Your task to perform on an android device: turn off javascript in the chrome app Image 0: 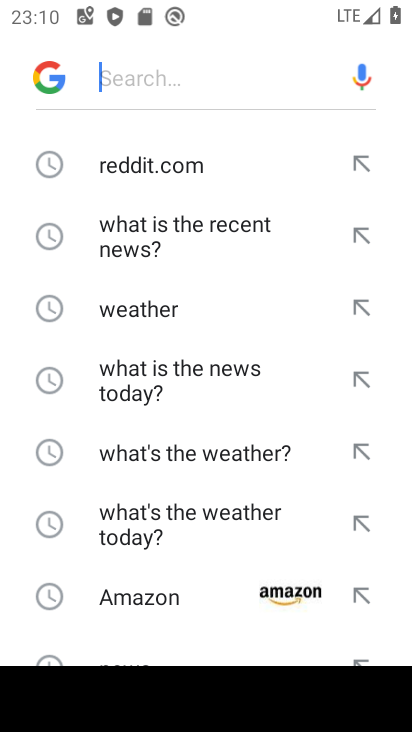
Step 0: press home button
Your task to perform on an android device: turn off javascript in the chrome app Image 1: 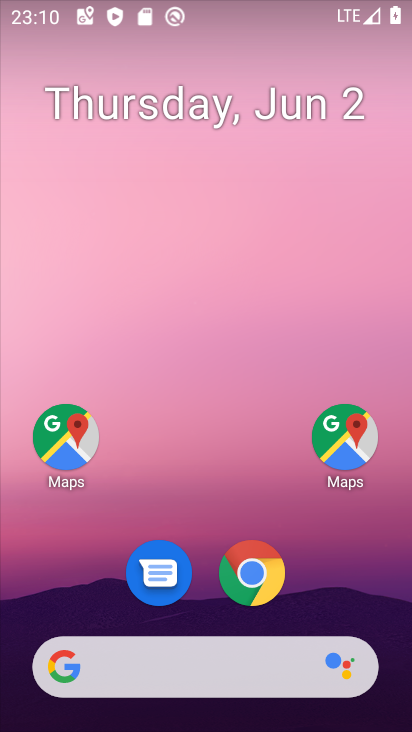
Step 1: click (259, 573)
Your task to perform on an android device: turn off javascript in the chrome app Image 2: 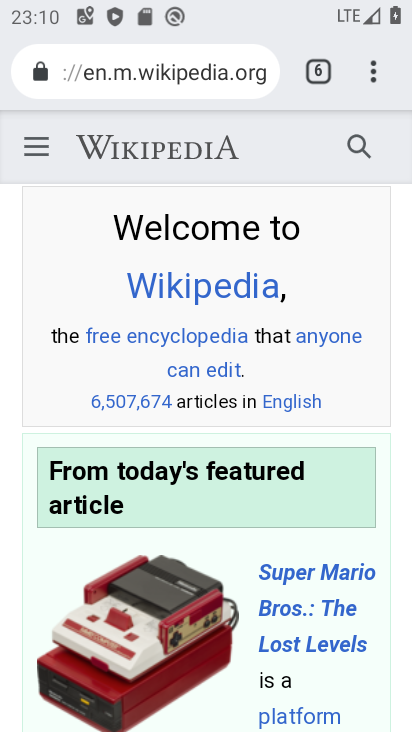
Step 2: click (377, 75)
Your task to perform on an android device: turn off javascript in the chrome app Image 3: 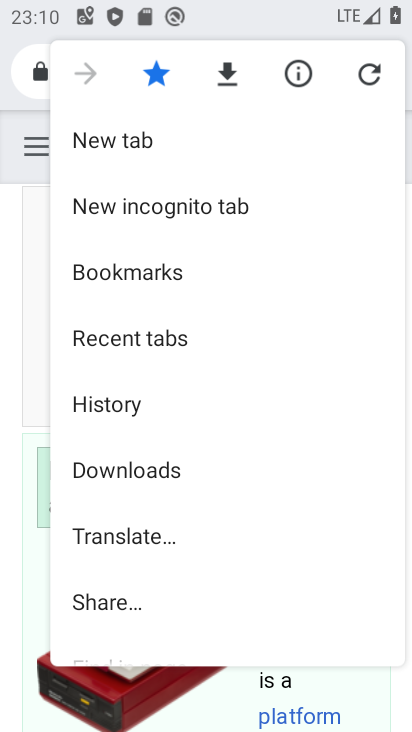
Step 3: click (403, 591)
Your task to perform on an android device: turn off javascript in the chrome app Image 4: 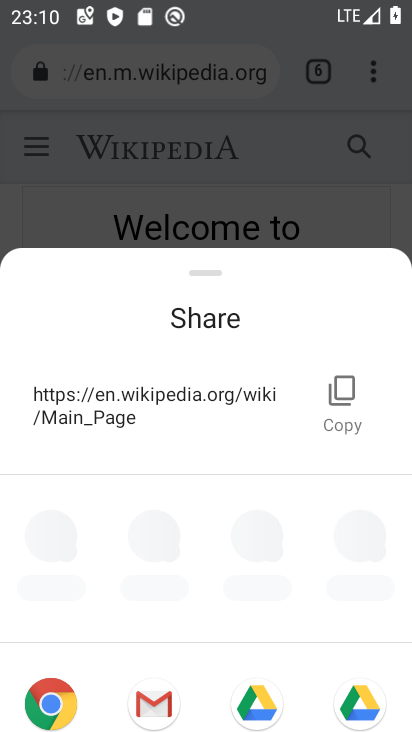
Step 4: press back button
Your task to perform on an android device: turn off javascript in the chrome app Image 5: 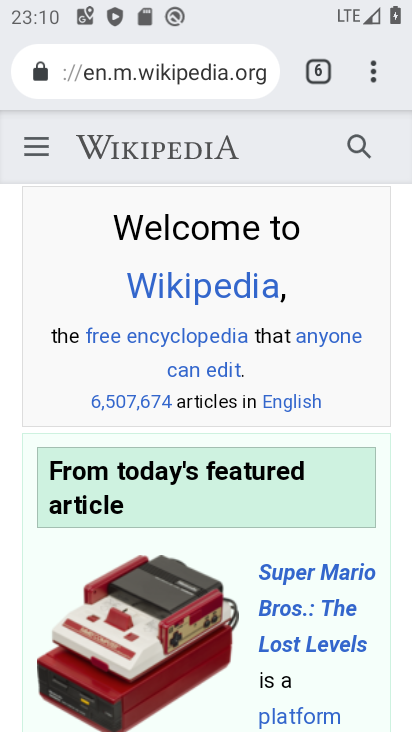
Step 5: press back button
Your task to perform on an android device: turn off javascript in the chrome app Image 6: 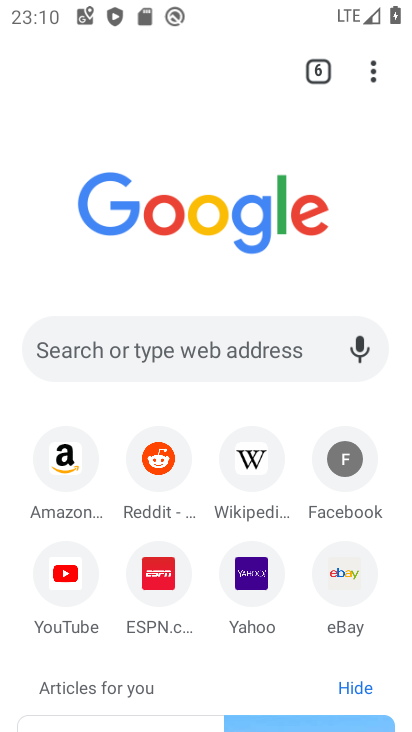
Step 6: click (371, 69)
Your task to perform on an android device: turn off javascript in the chrome app Image 7: 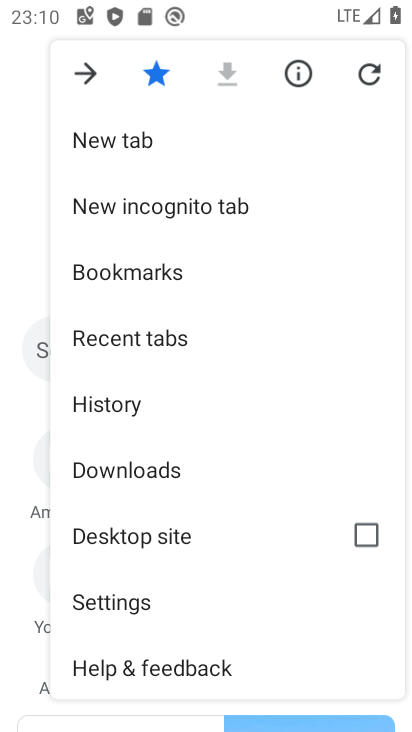
Step 7: click (267, 614)
Your task to perform on an android device: turn off javascript in the chrome app Image 8: 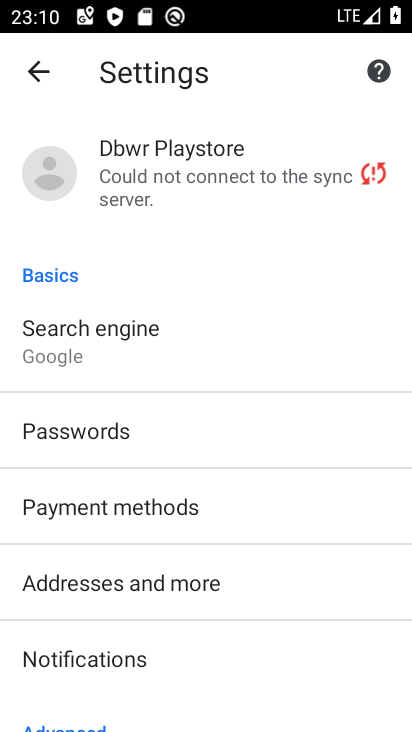
Step 8: drag from (277, 639) to (275, 273)
Your task to perform on an android device: turn off javascript in the chrome app Image 9: 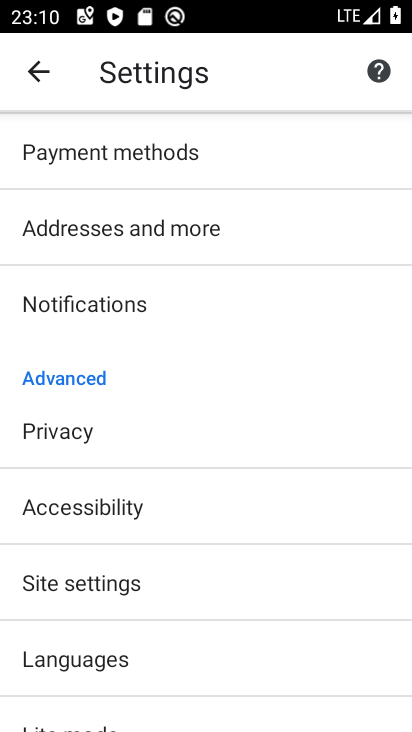
Step 9: click (77, 571)
Your task to perform on an android device: turn off javascript in the chrome app Image 10: 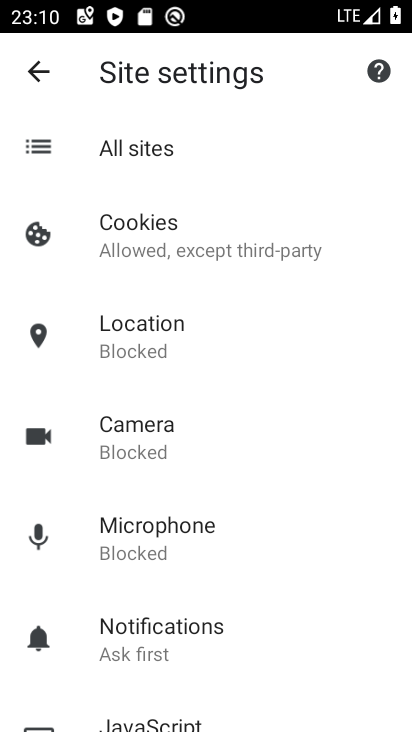
Step 10: click (156, 710)
Your task to perform on an android device: turn off javascript in the chrome app Image 11: 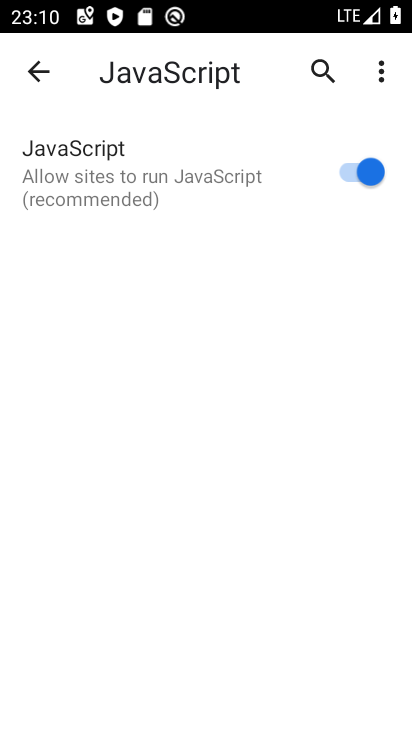
Step 11: click (294, 170)
Your task to perform on an android device: turn off javascript in the chrome app Image 12: 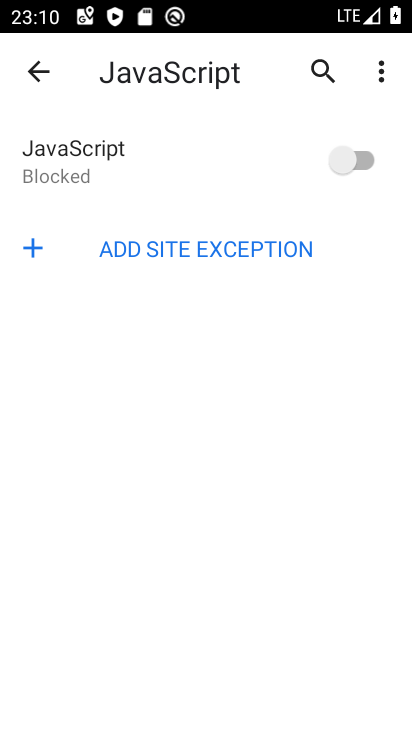
Step 12: task complete